Your task to perform on an android device: set the stopwatch Image 0: 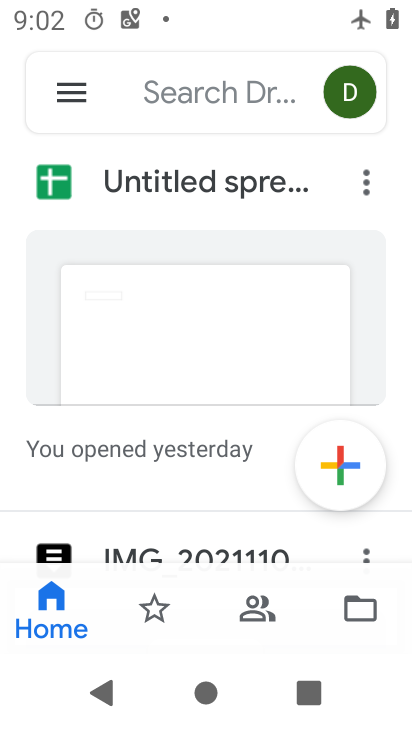
Step 0: press home button
Your task to perform on an android device: set the stopwatch Image 1: 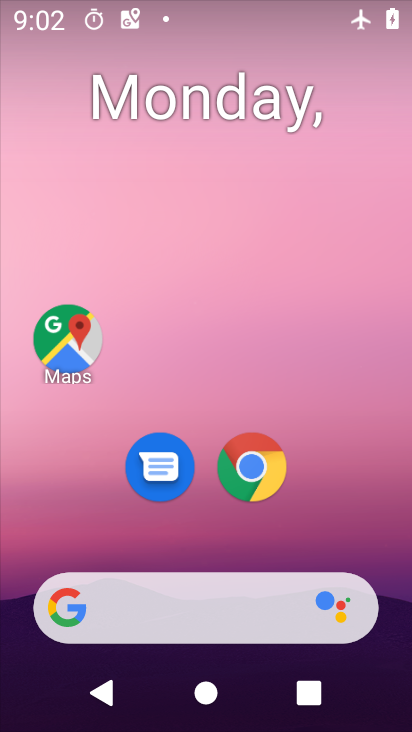
Step 1: drag from (205, 489) to (266, 26)
Your task to perform on an android device: set the stopwatch Image 2: 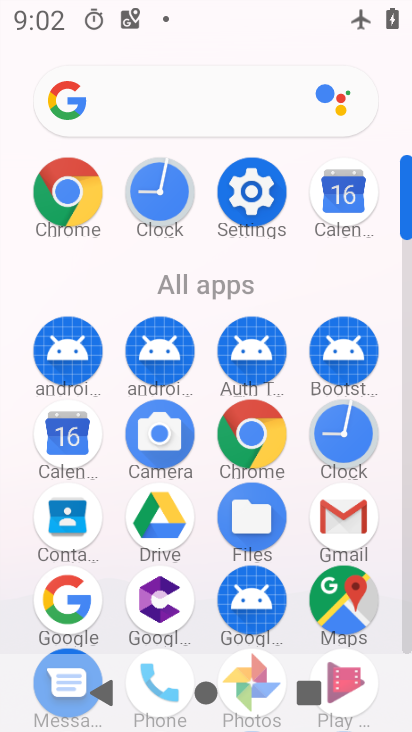
Step 2: click (351, 441)
Your task to perform on an android device: set the stopwatch Image 3: 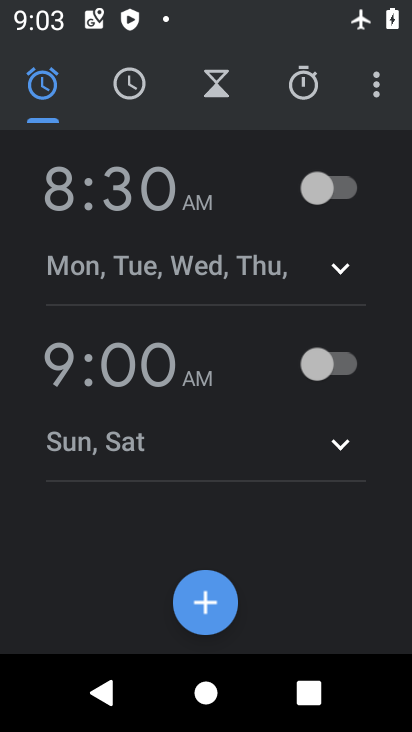
Step 3: click (304, 95)
Your task to perform on an android device: set the stopwatch Image 4: 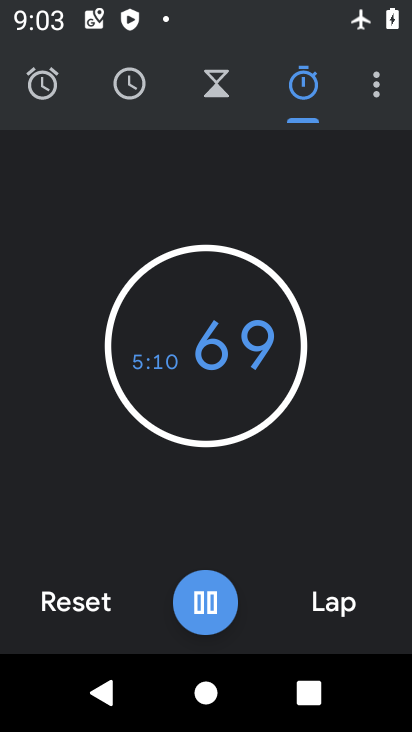
Step 4: task complete